Your task to perform on an android device: open app "YouTube Kids" (install if not already installed), go to login, and select forgot password Image 0: 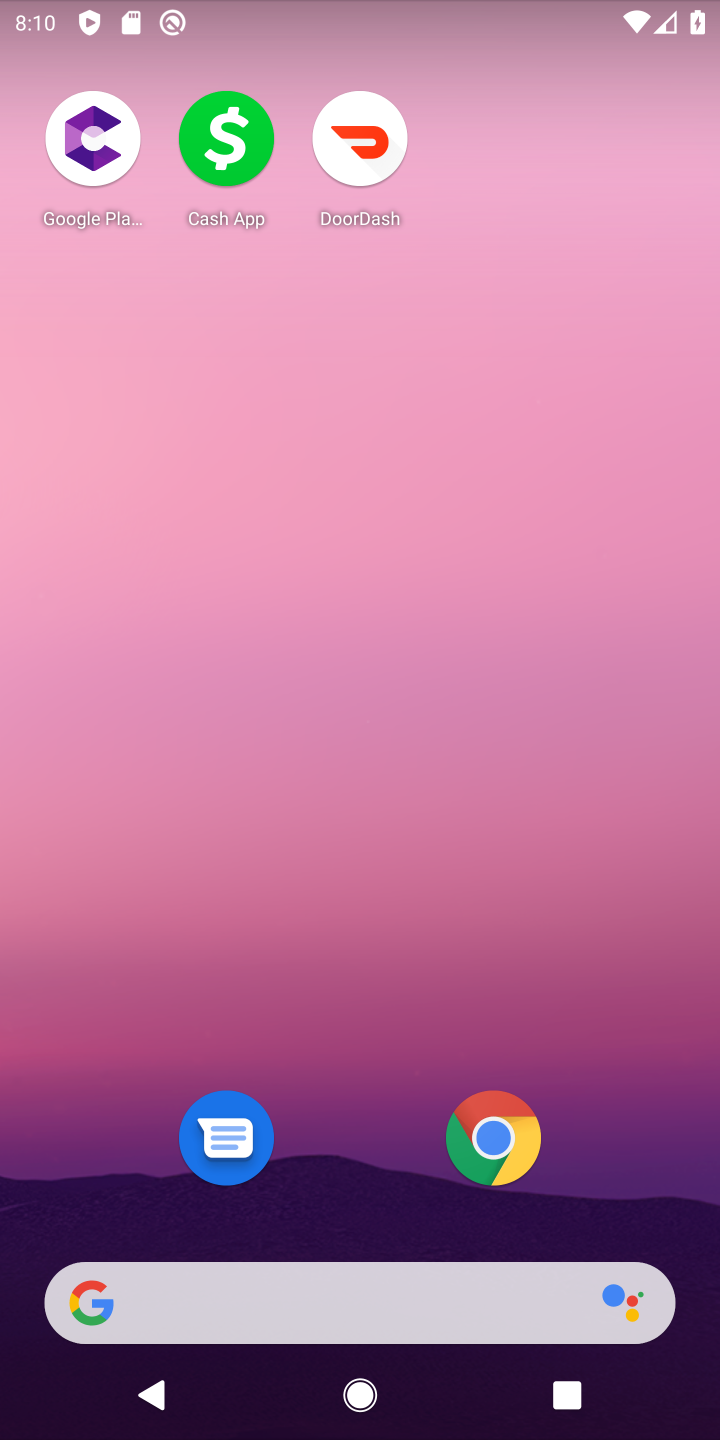
Step 0: drag from (281, 1234) to (313, 455)
Your task to perform on an android device: open app "YouTube Kids" (install if not already installed), go to login, and select forgot password Image 1: 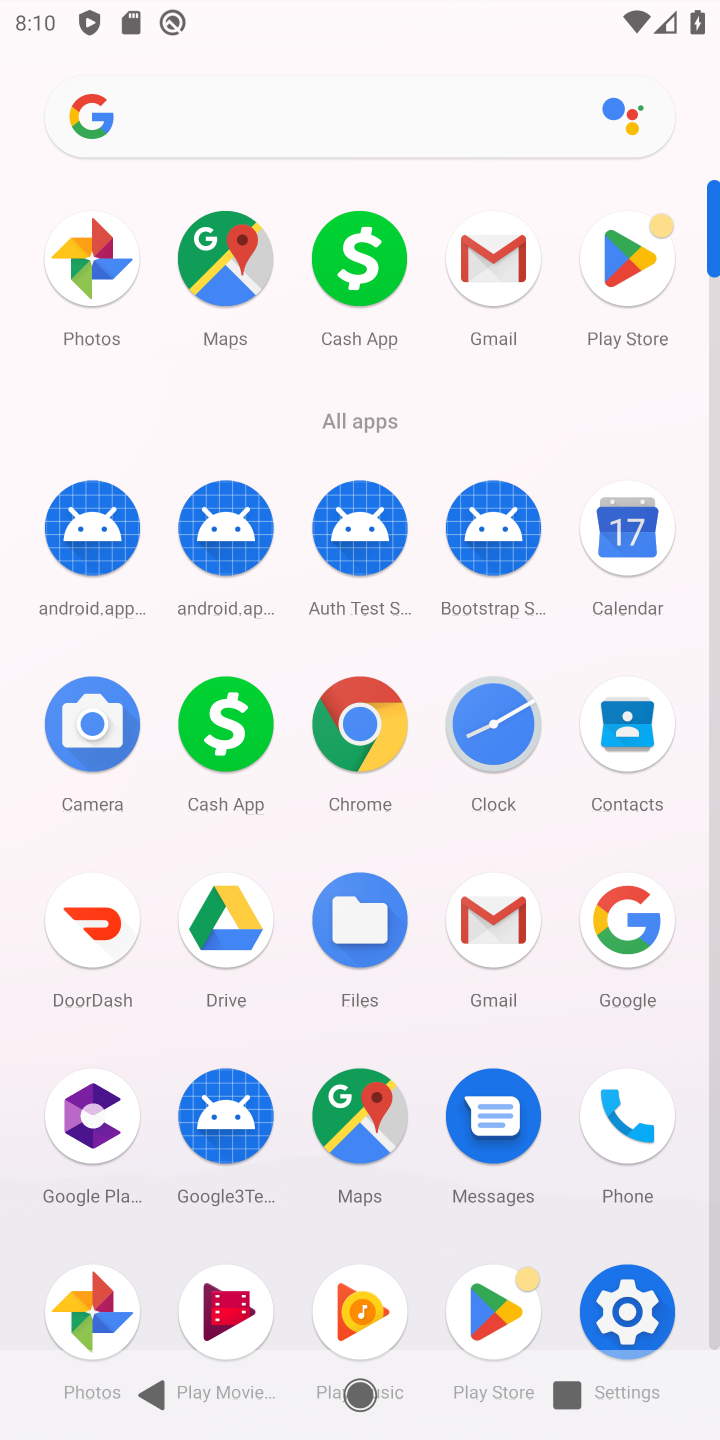
Step 1: click (513, 1302)
Your task to perform on an android device: open app "YouTube Kids" (install if not already installed), go to login, and select forgot password Image 2: 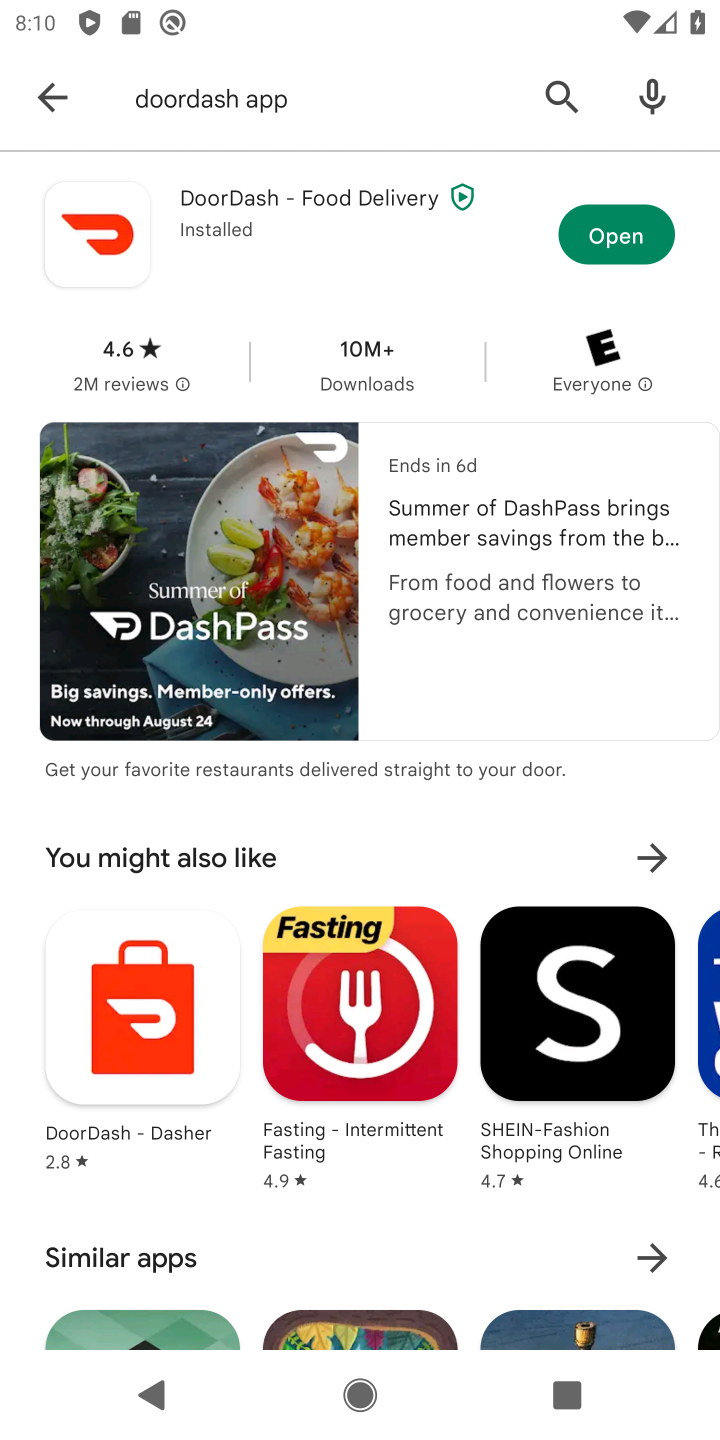
Step 2: click (78, 77)
Your task to perform on an android device: open app "YouTube Kids" (install if not already installed), go to login, and select forgot password Image 3: 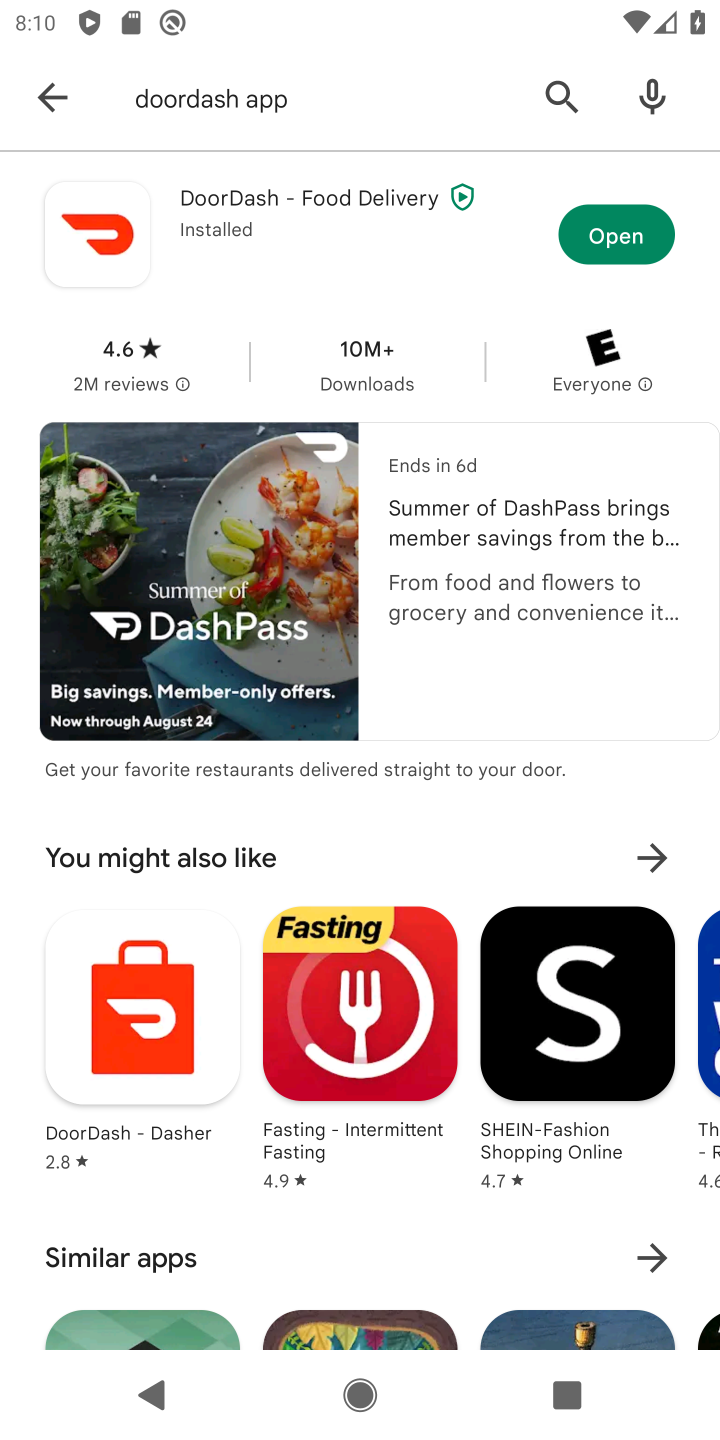
Step 3: click (71, 95)
Your task to perform on an android device: open app "YouTube Kids" (install if not already installed), go to login, and select forgot password Image 4: 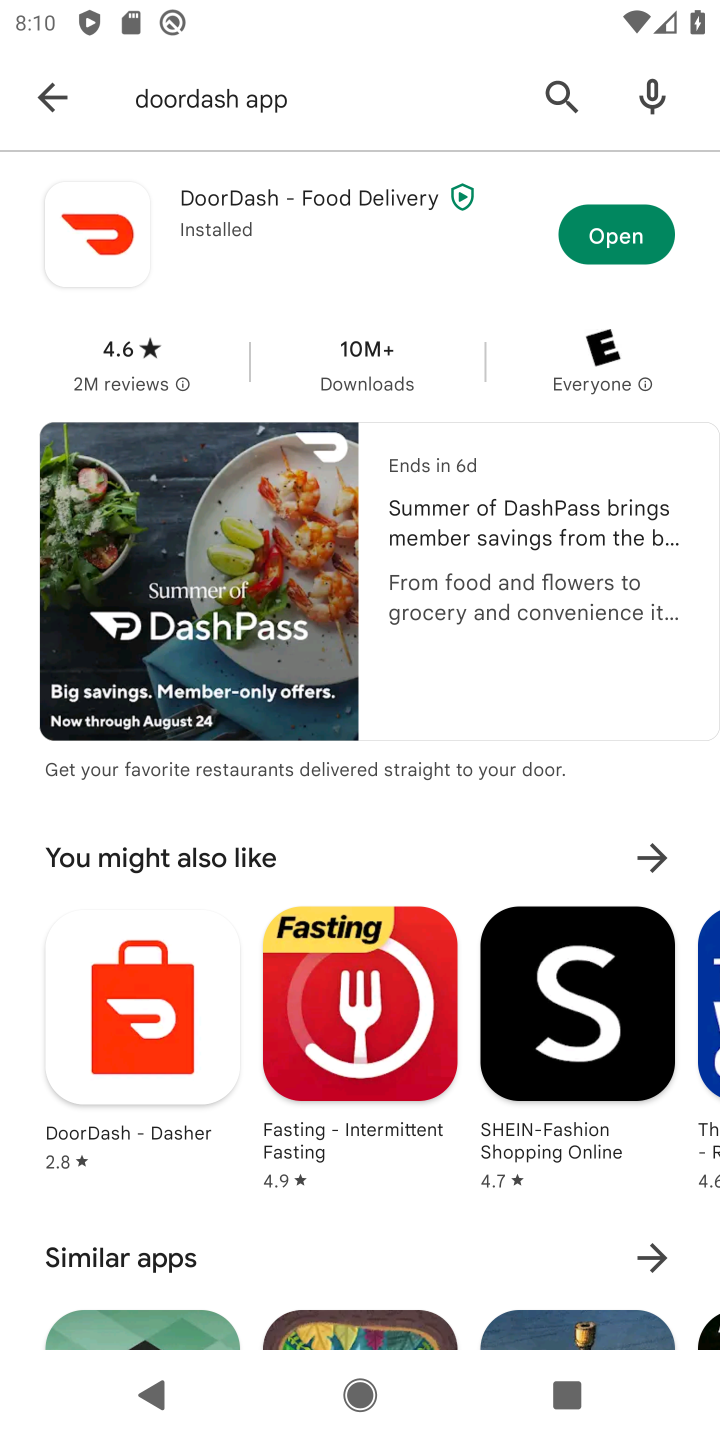
Step 4: click (61, 102)
Your task to perform on an android device: open app "YouTube Kids" (install if not already installed), go to login, and select forgot password Image 5: 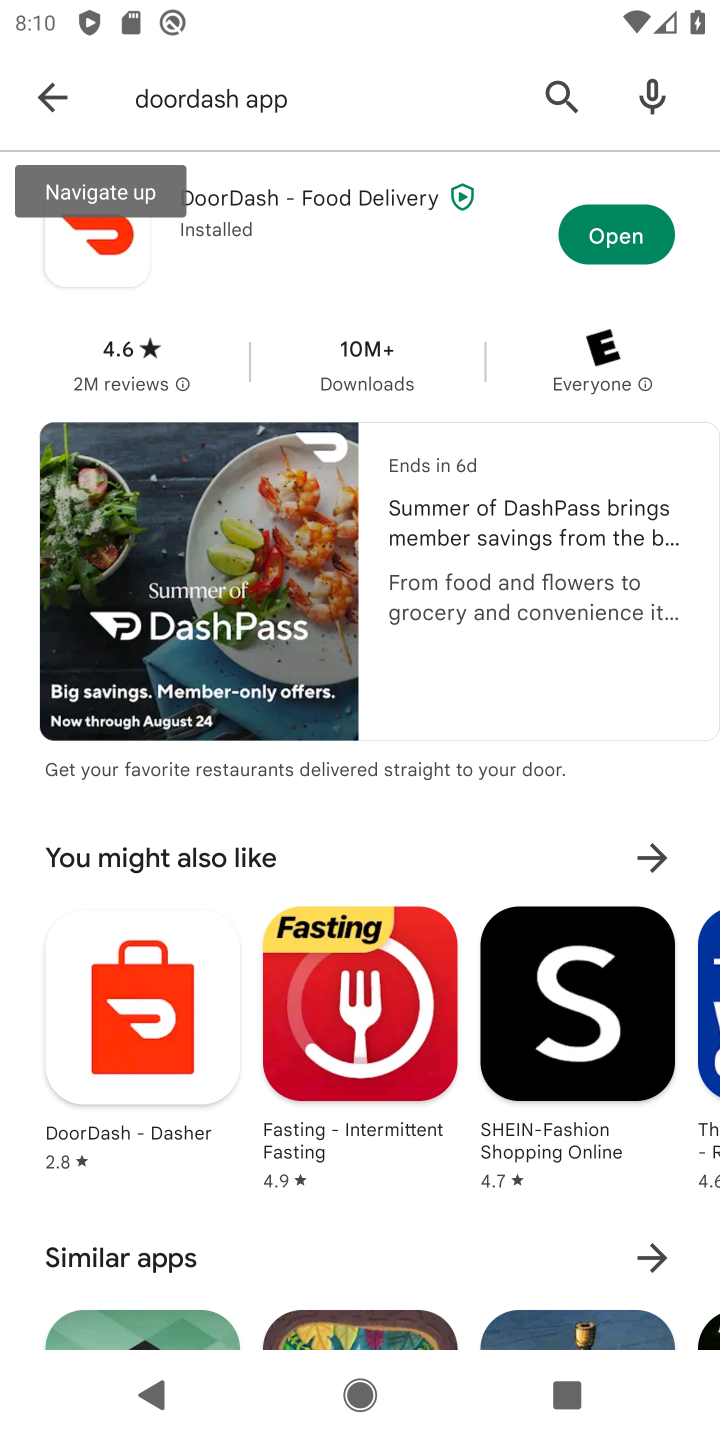
Step 5: click (561, 97)
Your task to perform on an android device: open app "YouTube Kids" (install if not already installed), go to login, and select forgot password Image 6: 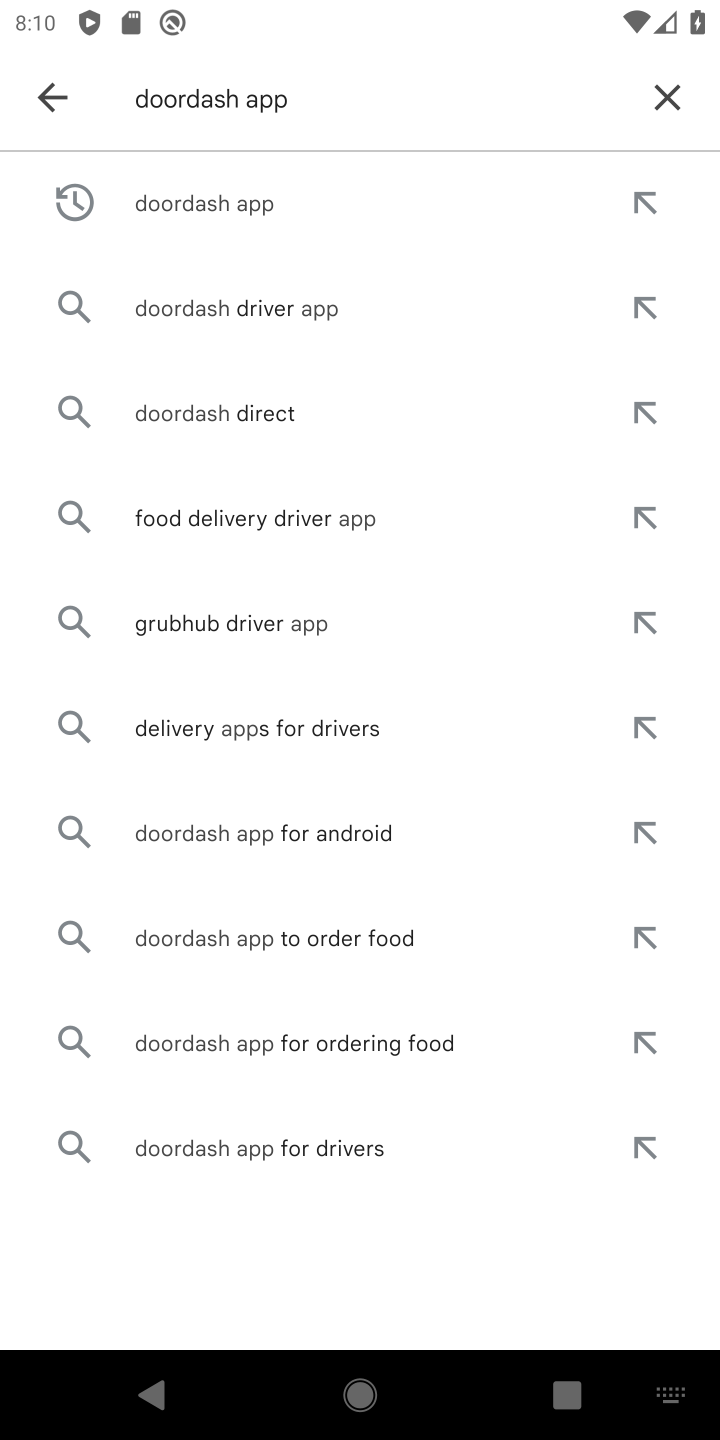
Step 6: click (680, 77)
Your task to perform on an android device: open app "YouTube Kids" (install if not already installed), go to login, and select forgot password Image 7: 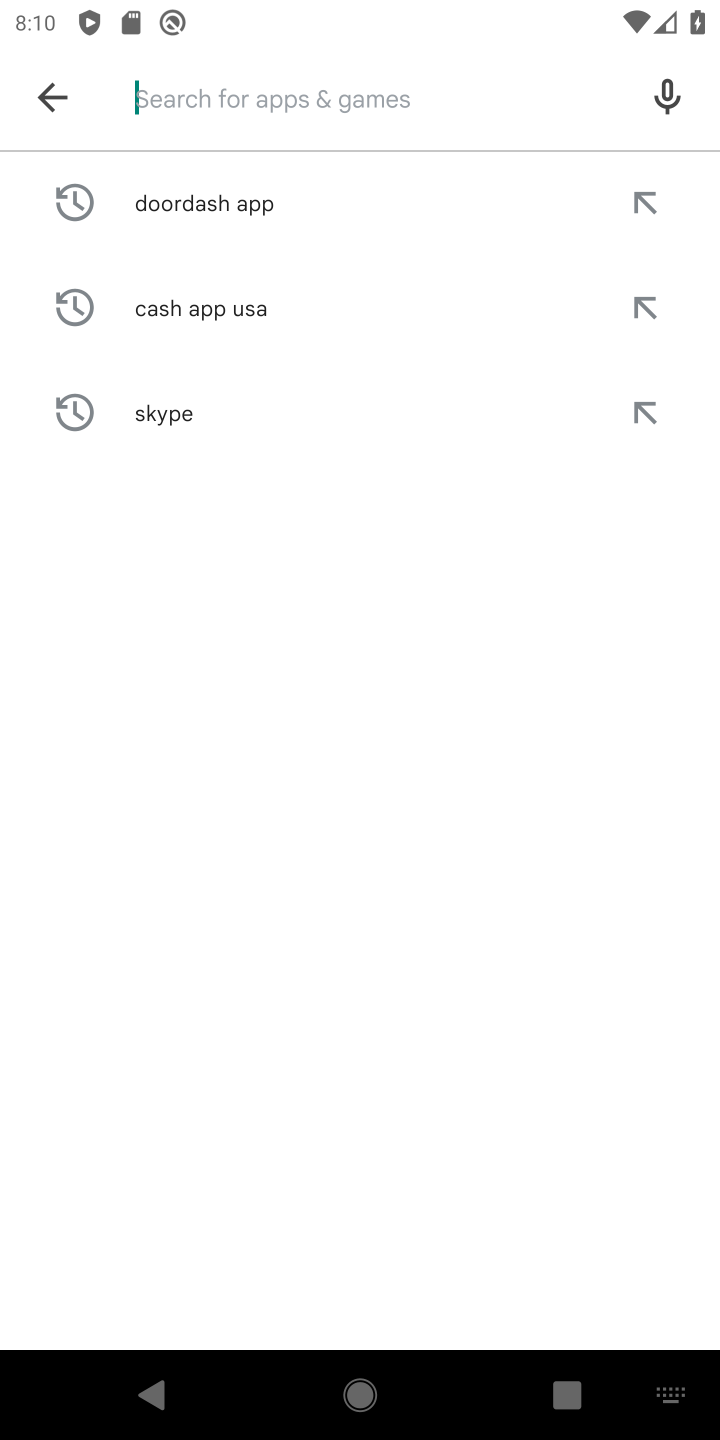
Step 7: click (287, 97)
Your task to perform on an android device: open app "YouTube Kids" (install if not already installed), go to login, and select forgot password Image 8: 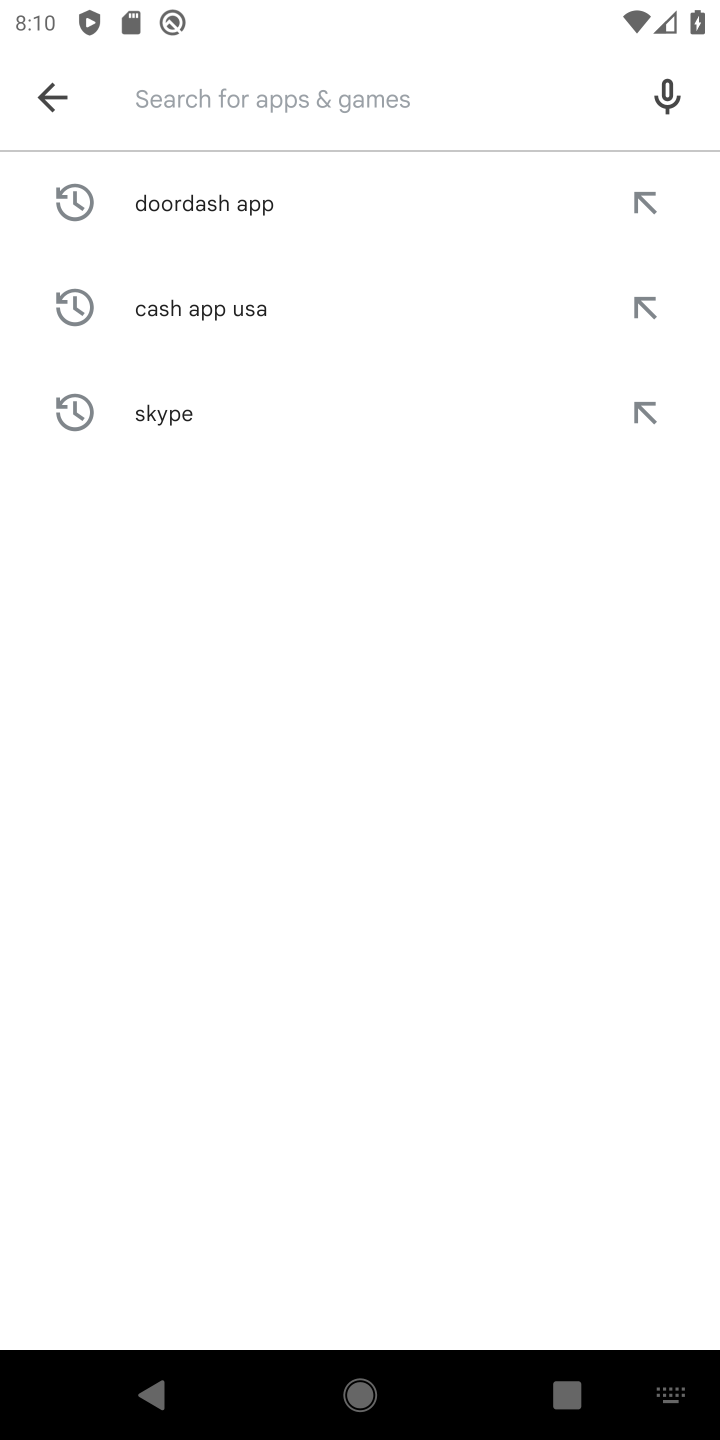
Step 8: type "YouTube Kids "
Your task to perform on an android device: open app "YouTube Kids" (install if not already installed), go to login, and select forgot password Image 9: 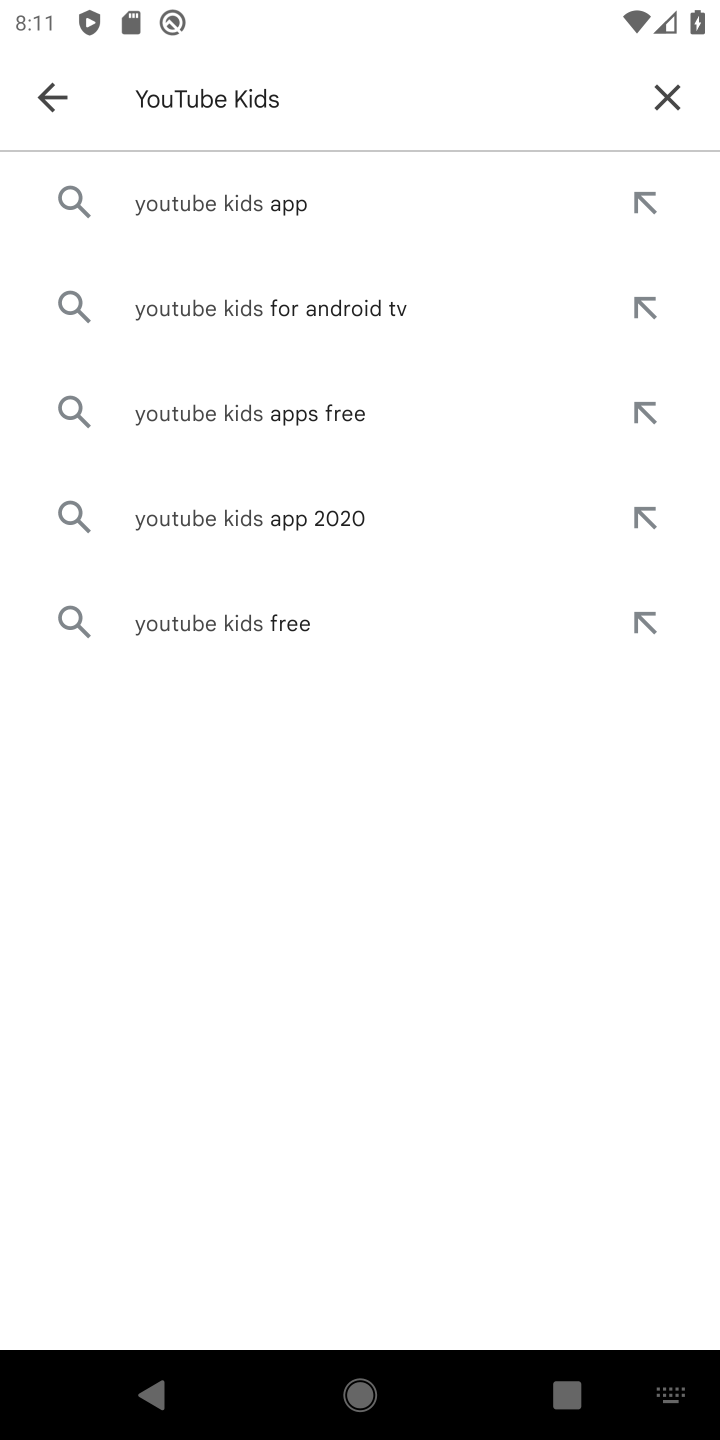
Step 9: click (207, 223)
Your task to perform on an android device: open app "YouTube Kids" (install if not already installed), go to login, and select forgot password Image 10: 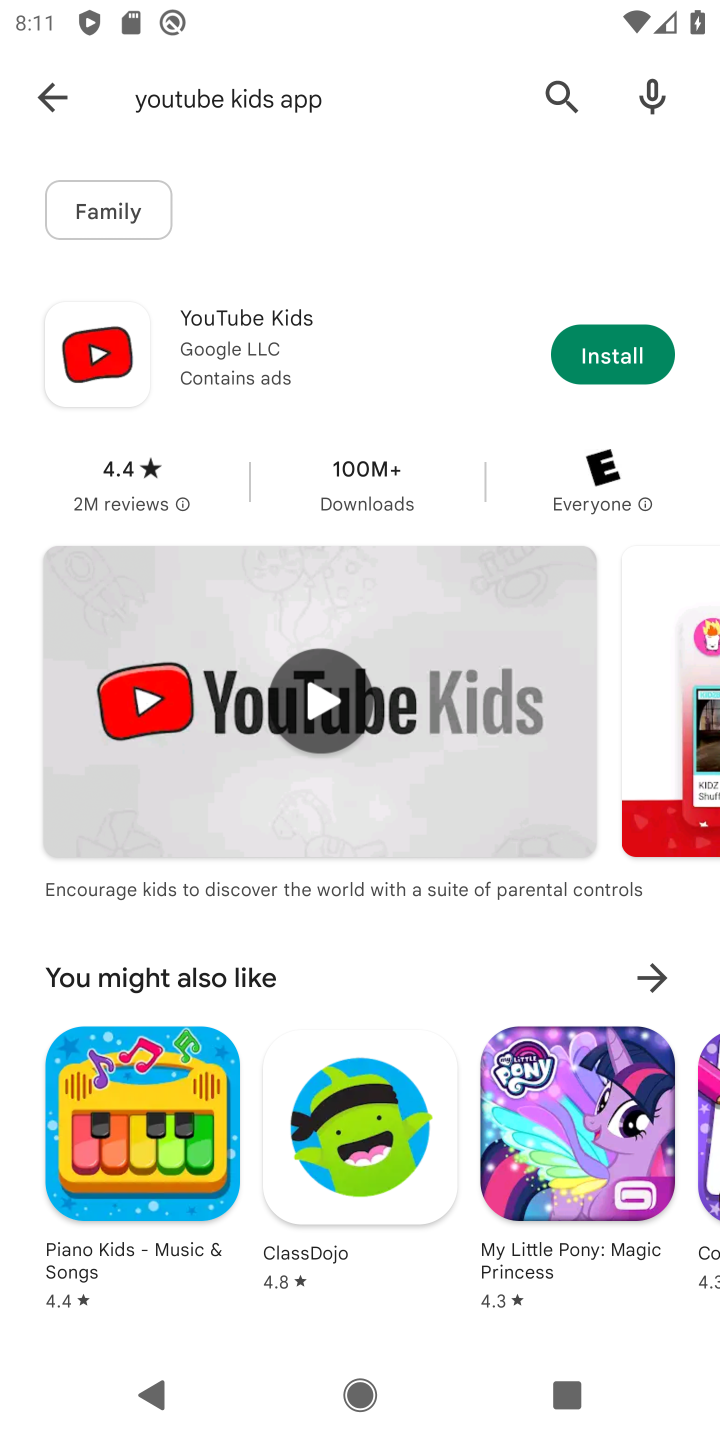
Step 10: click (598, 353)
Your task to perform on an android device: open app "YouTube Kids" (install if not already installed), go to login, and select forgot password Image 11: 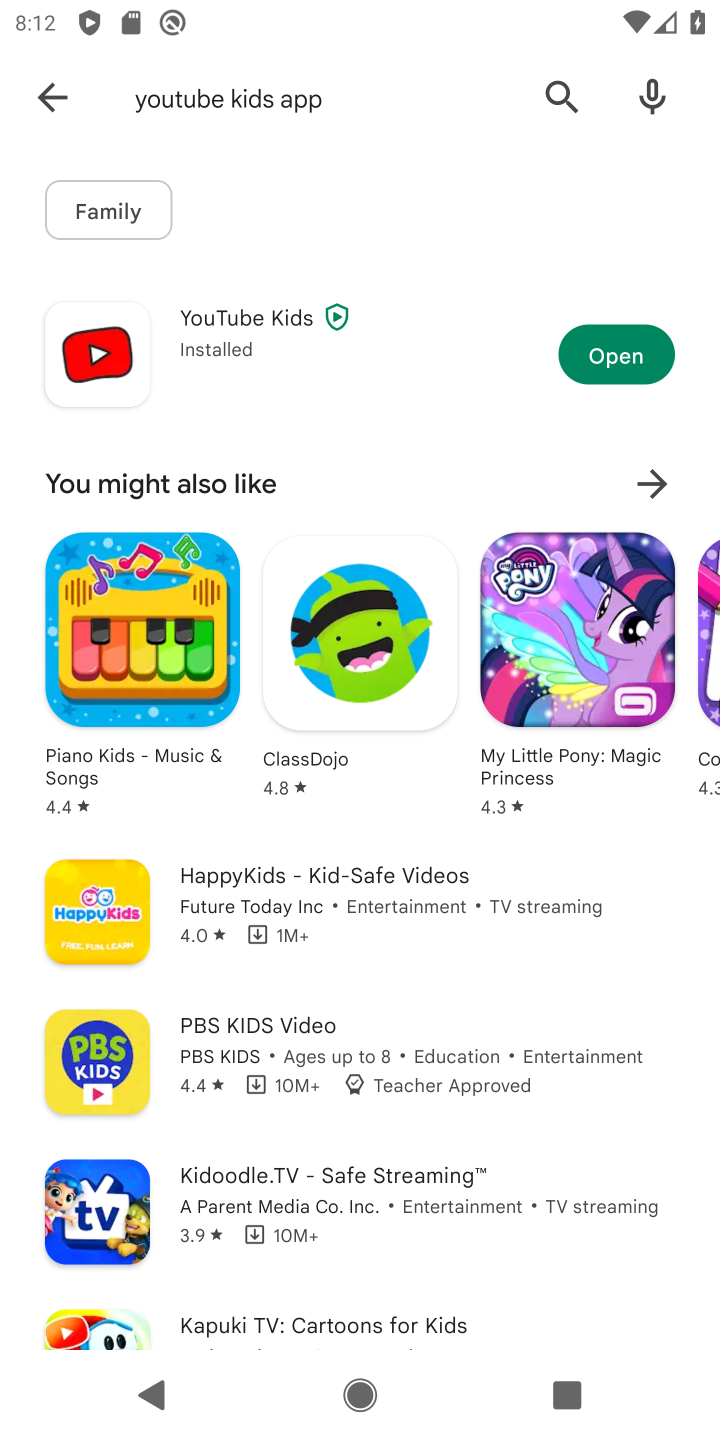
Step 11: click (598, 353)
Your task to perform on an android device: open app "YouTube Kids" (install if not already installed), go to login, and select forgot password Image 12: 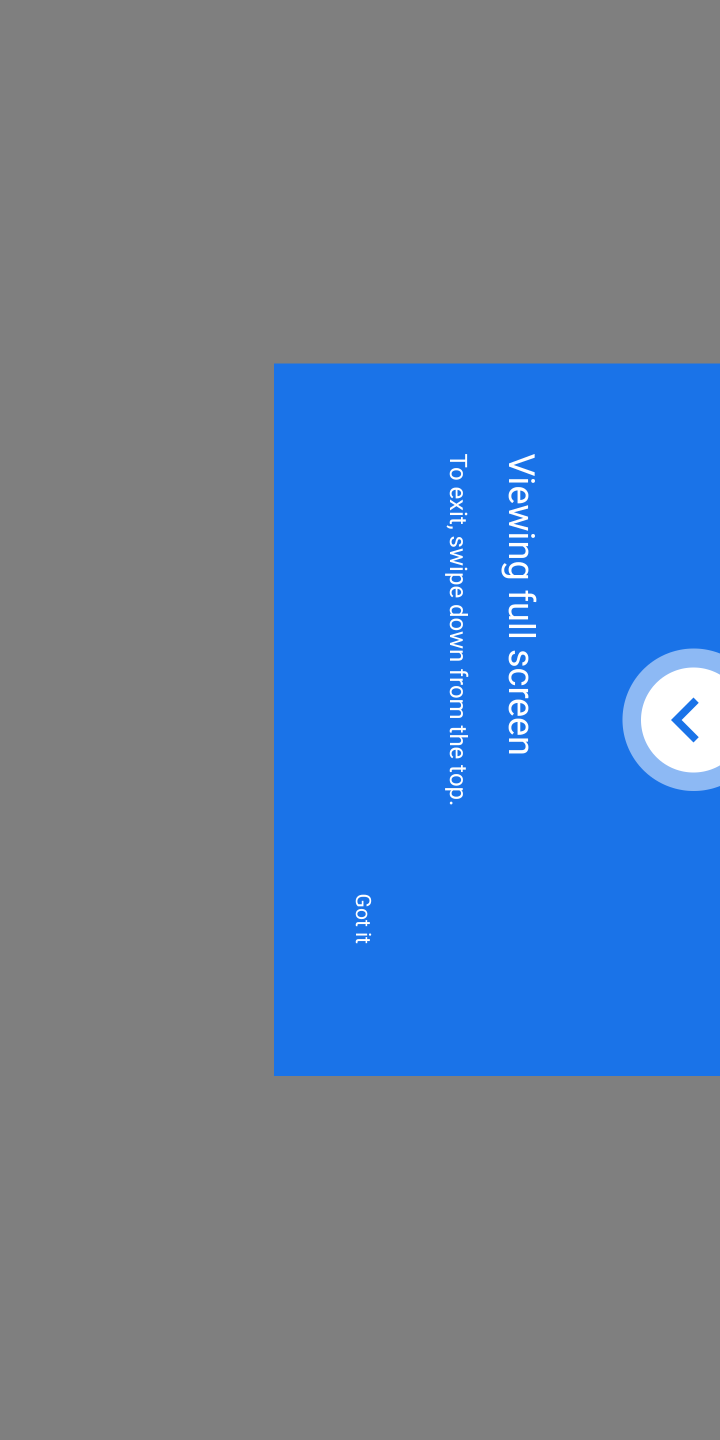
Step 12: click (346, 918)
Your task to perform on an android device: open app "YouTube Kids" (install if not already installed), go to login, and select forgot password Image 13: 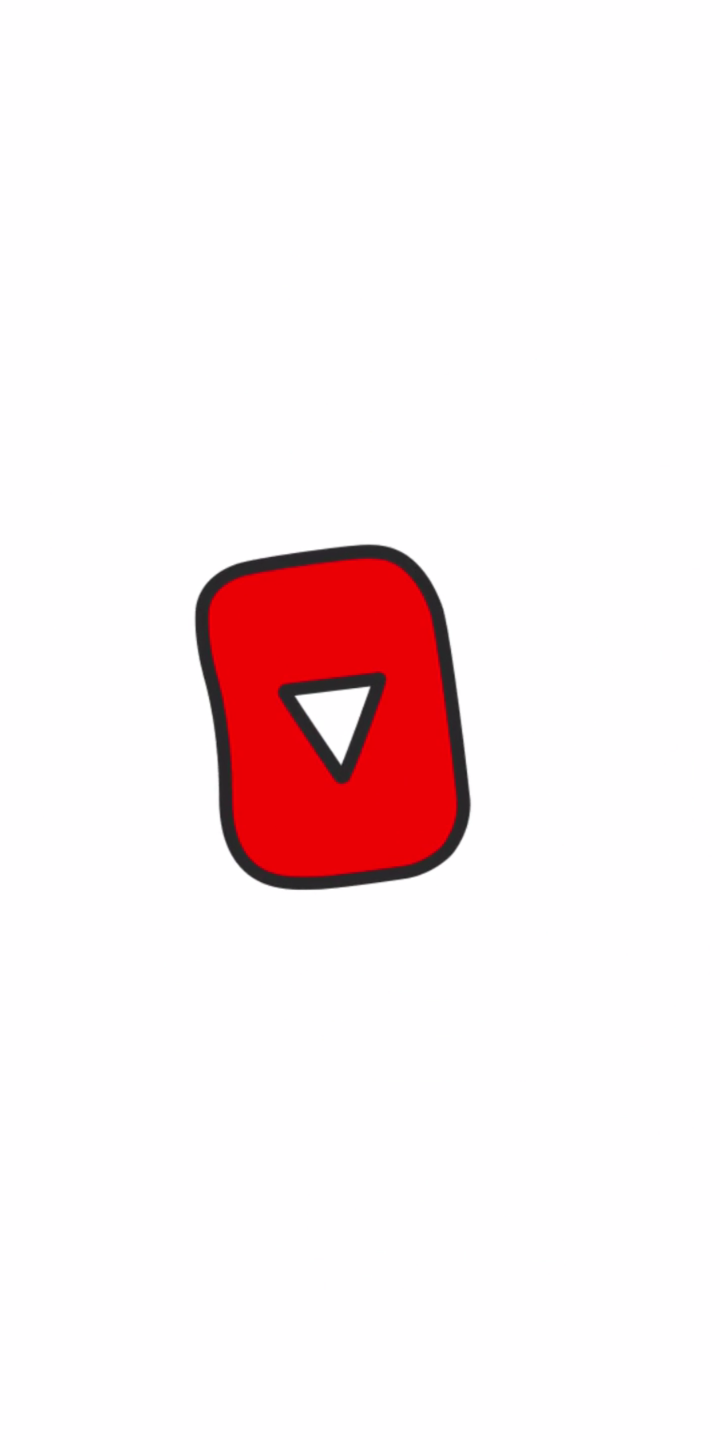
Step 13: click (327, 659)
Your task to perform on an android device: open app "YouTube Kids" (install if not already installed), go to login, and select forgot password Image 14: 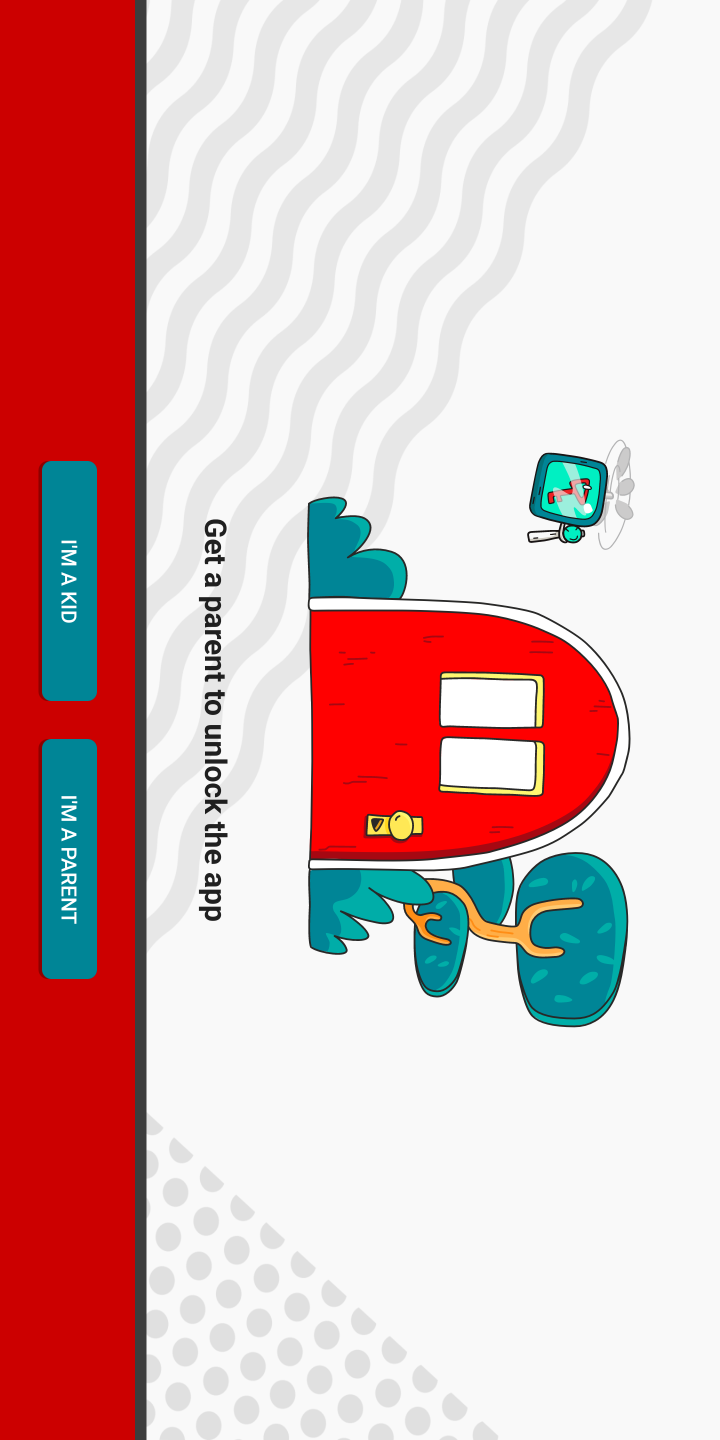
Step 14: task complete